Your task to perform on an android device: Show me popular videos on Youtube Image 0: 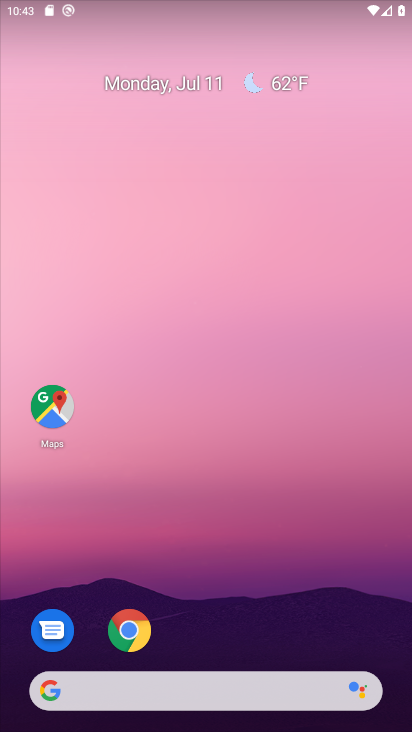
Step 0: drag from (263, 561) to (230, 8)
Your task to perform on an android device: Show me popular videos on Youtube Image 1: 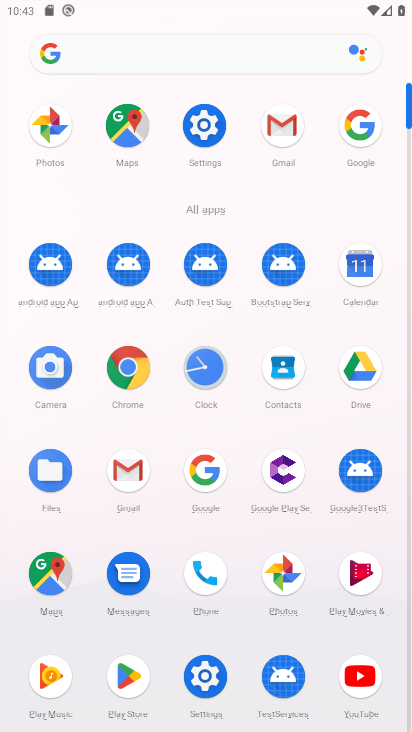
Step 1: click (365, 683)
Your task to perform on an android device: Show me popular videos on Youtube Image 2: 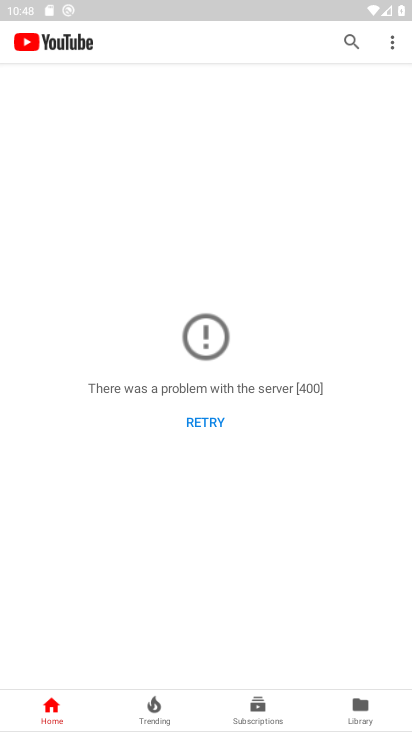
Step 2: task complete